Your task to perform on an android device: Go to calendar. Show me events next week Image 0: 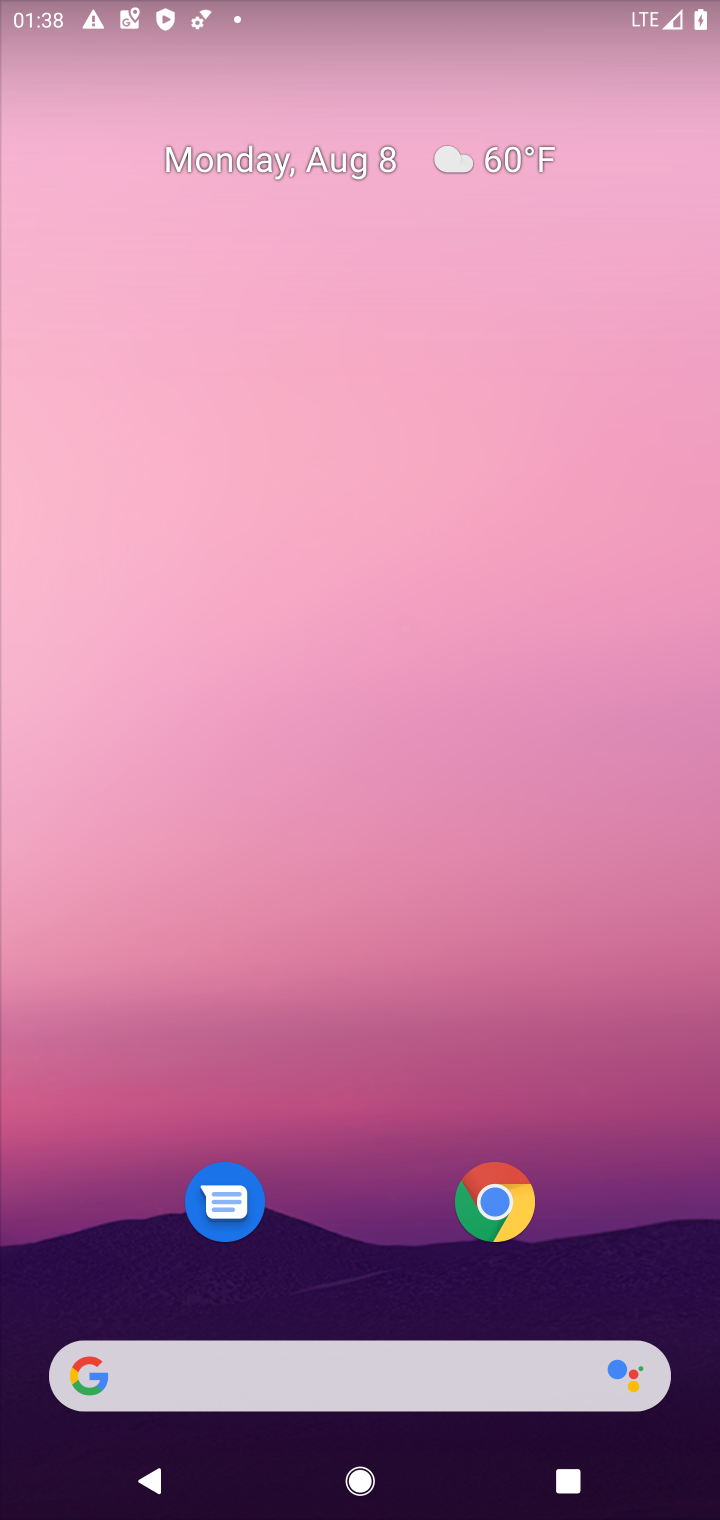
Step 0: drag from (327, 460) to (320, 298)
Your task to perform on an android device: Go to calendar. Show me events next week Image 1: 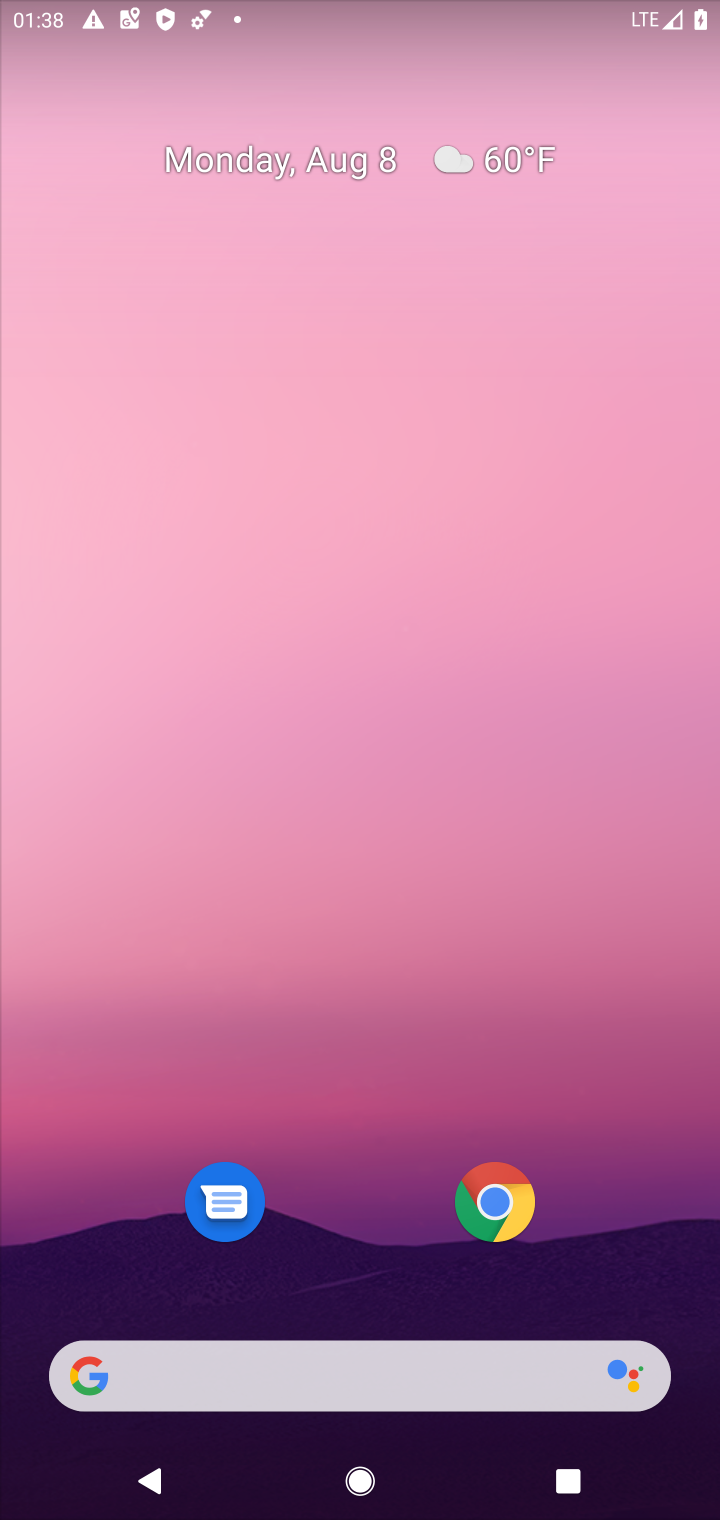
Step 1: drag from (366, 1247) to (281, 86)
Your task to perform on an android device: Go to calendar. Show me events next week Image 2: 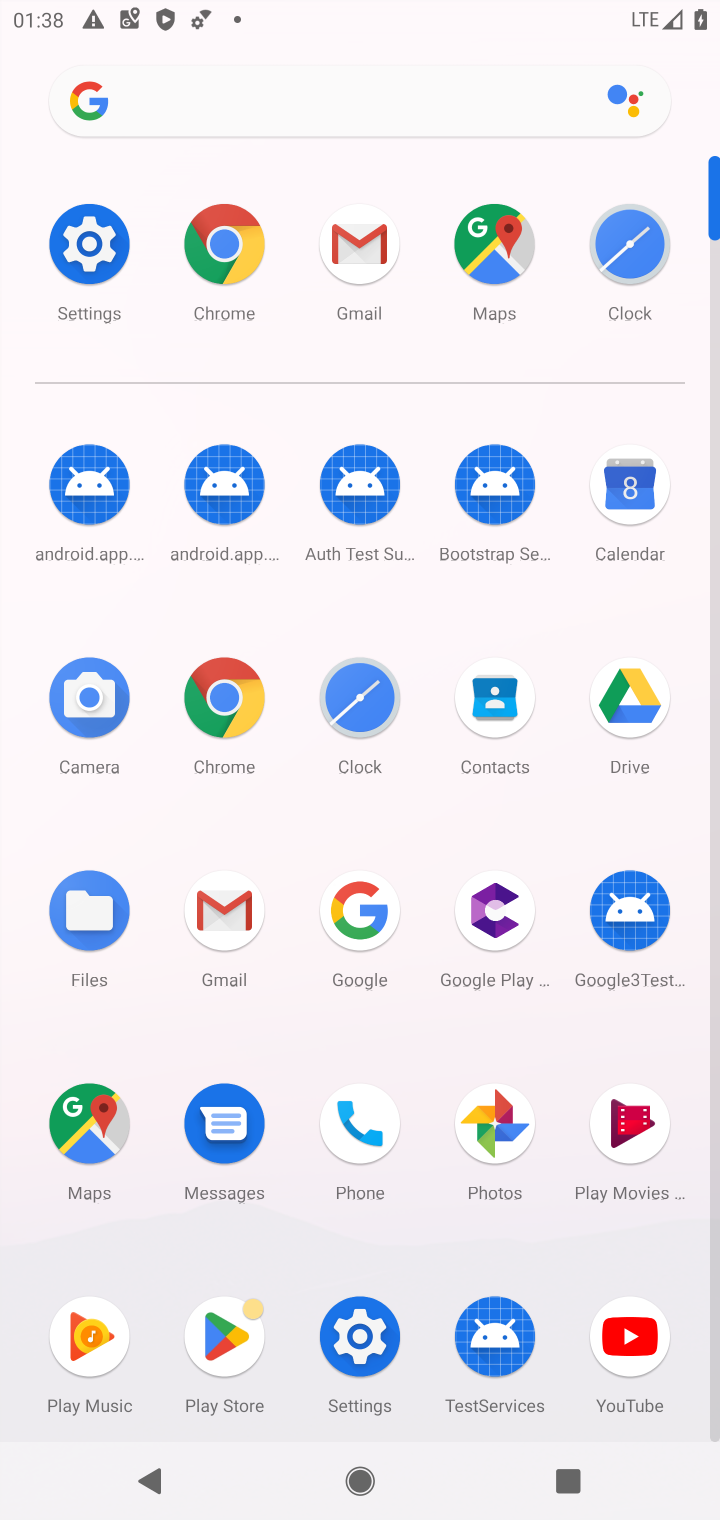
Step 2: click (634, 505)
Your task to perform on an android device: Go to calendar. Show me events next week Image 3: 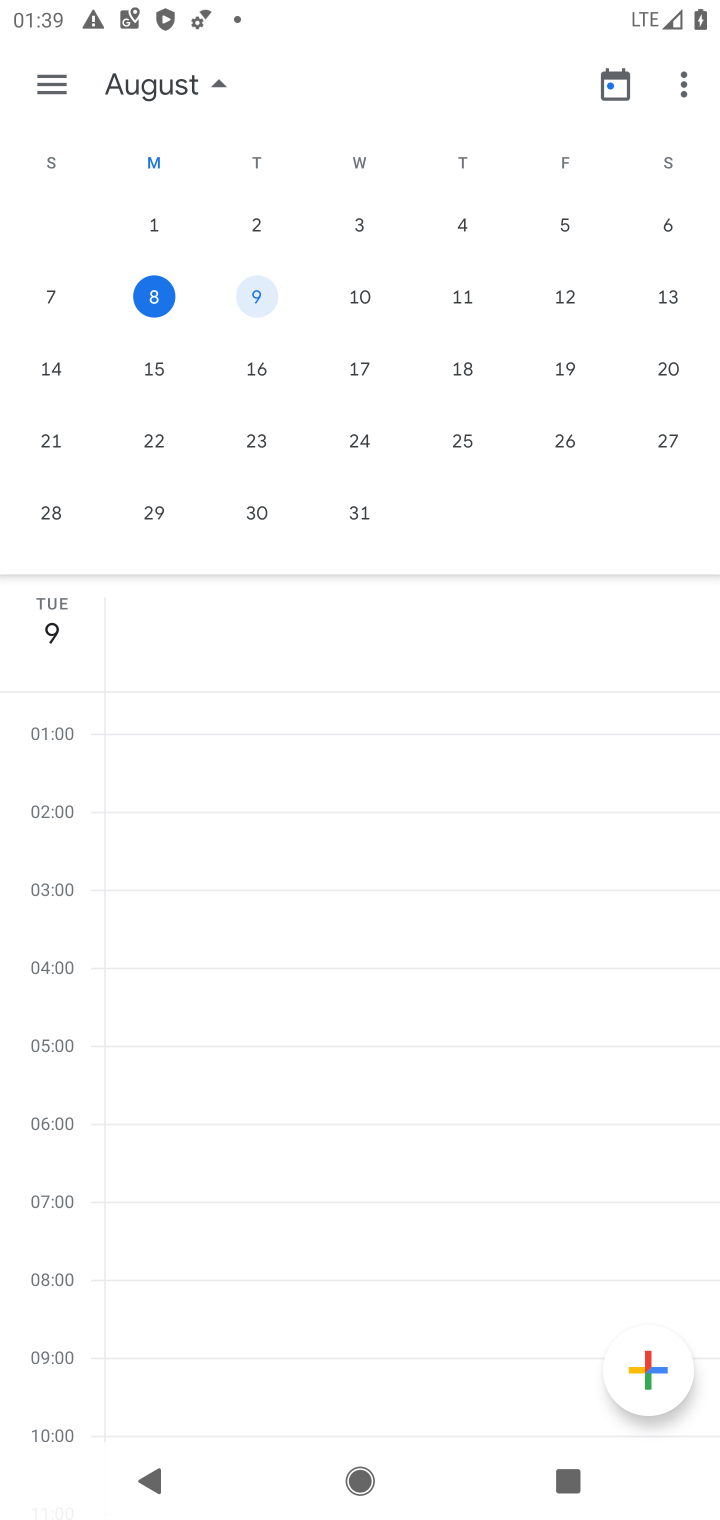
Step 3: click (44, 360)
Your task to perform on an android device: Go to calendar. Show me events next week Image 4: 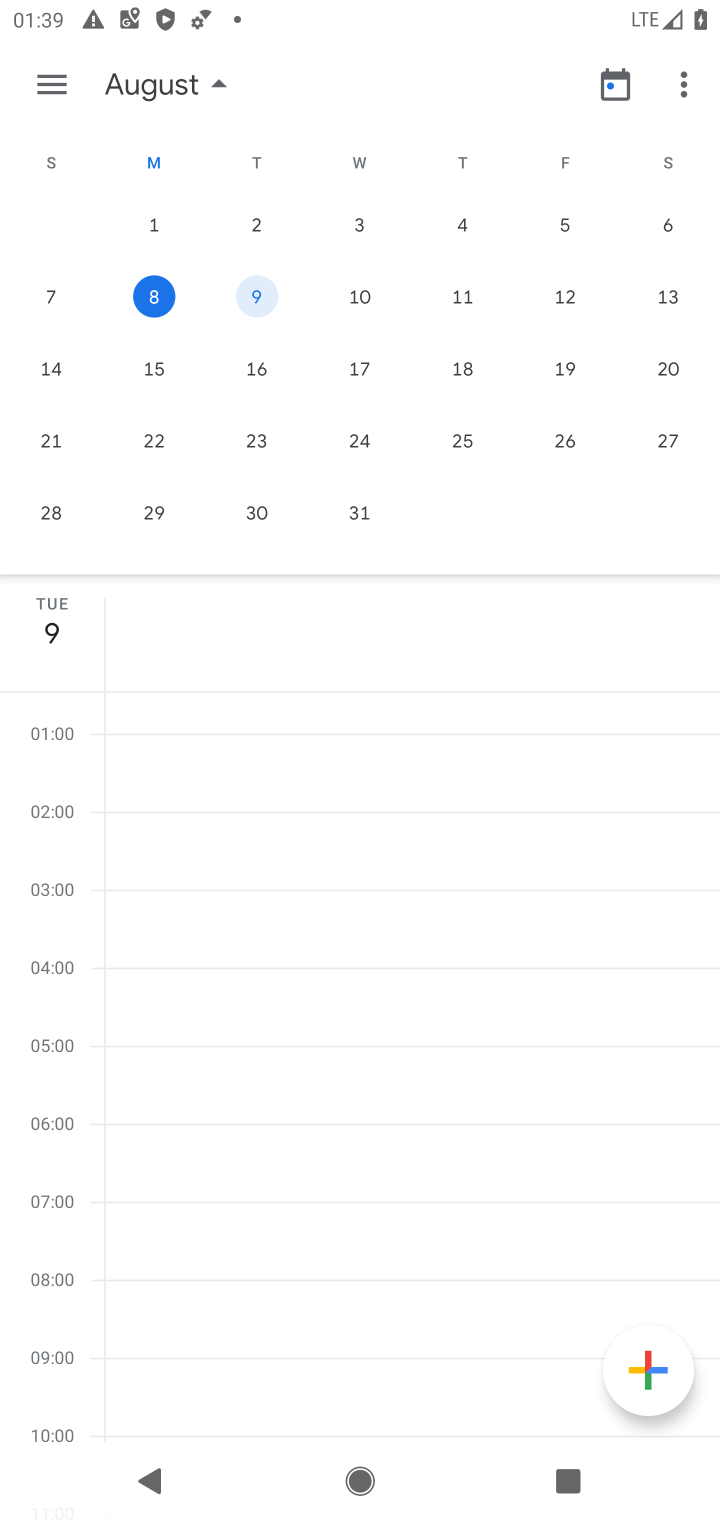
Step 4: click (44, 360)
Your task to perform on an android device: Go to calendar. Show me events next week Image 5: 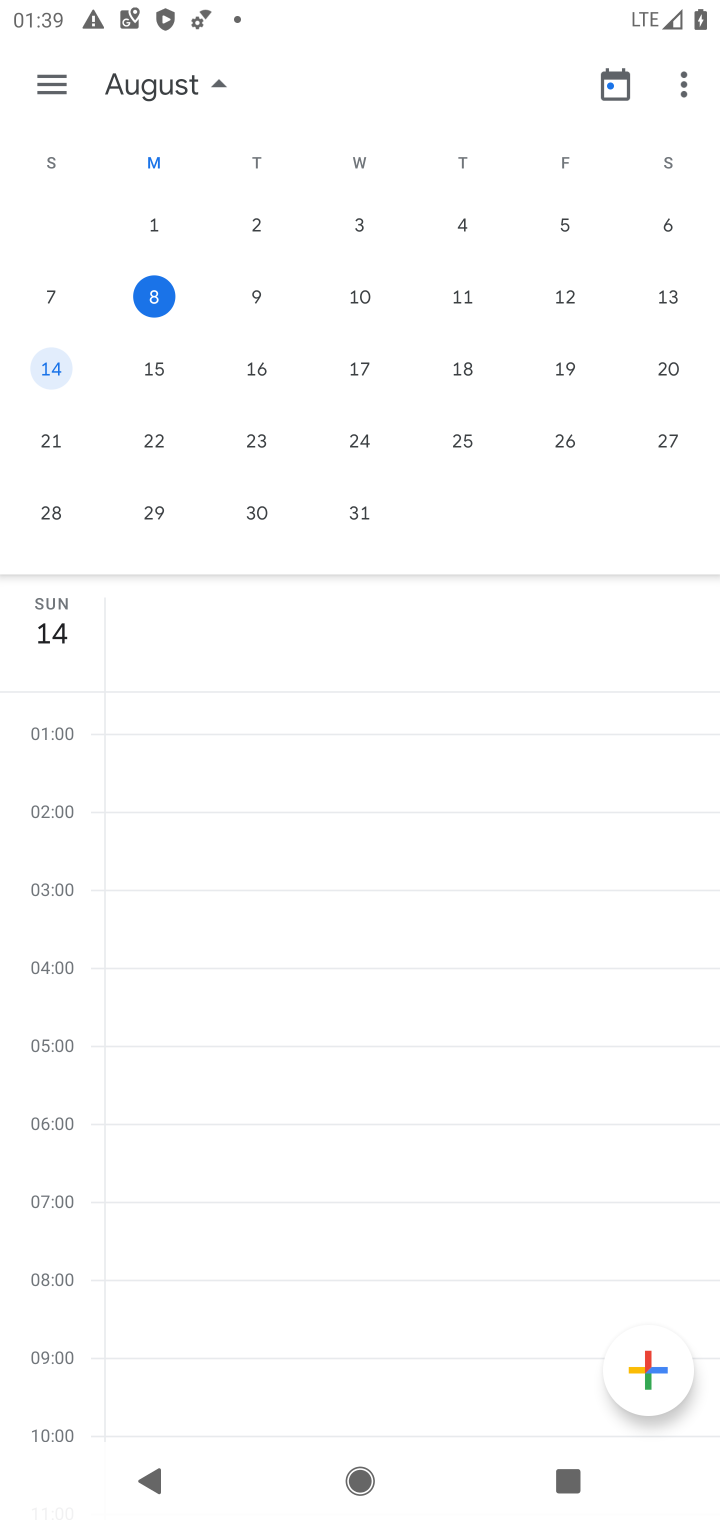
Step 5: click (62, 89)
Your task to perform on an android device: Go to calendar. Show me events next week Image 6: 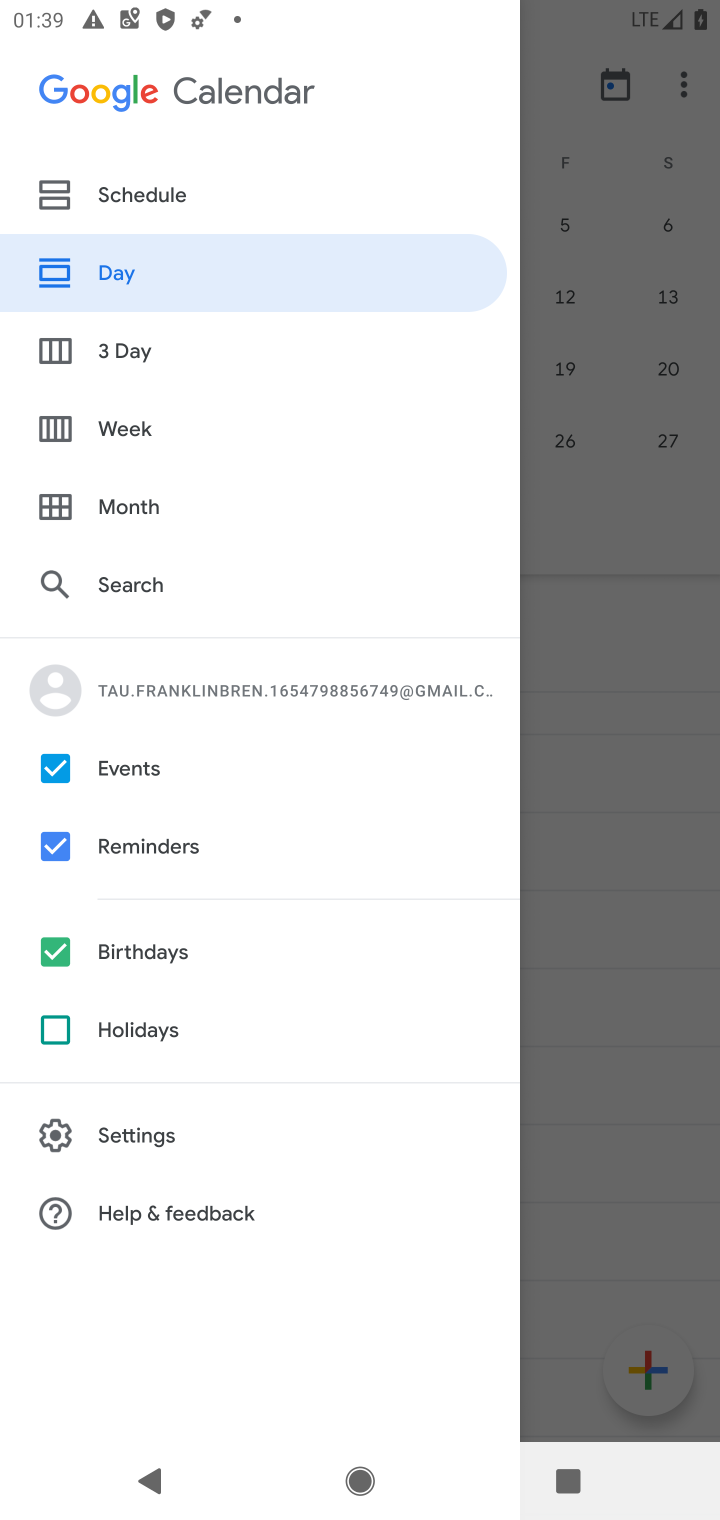
Step 6: click (123, 432)
Your task to perform on an android device: Go to calendar. Show me events next week Image 7: 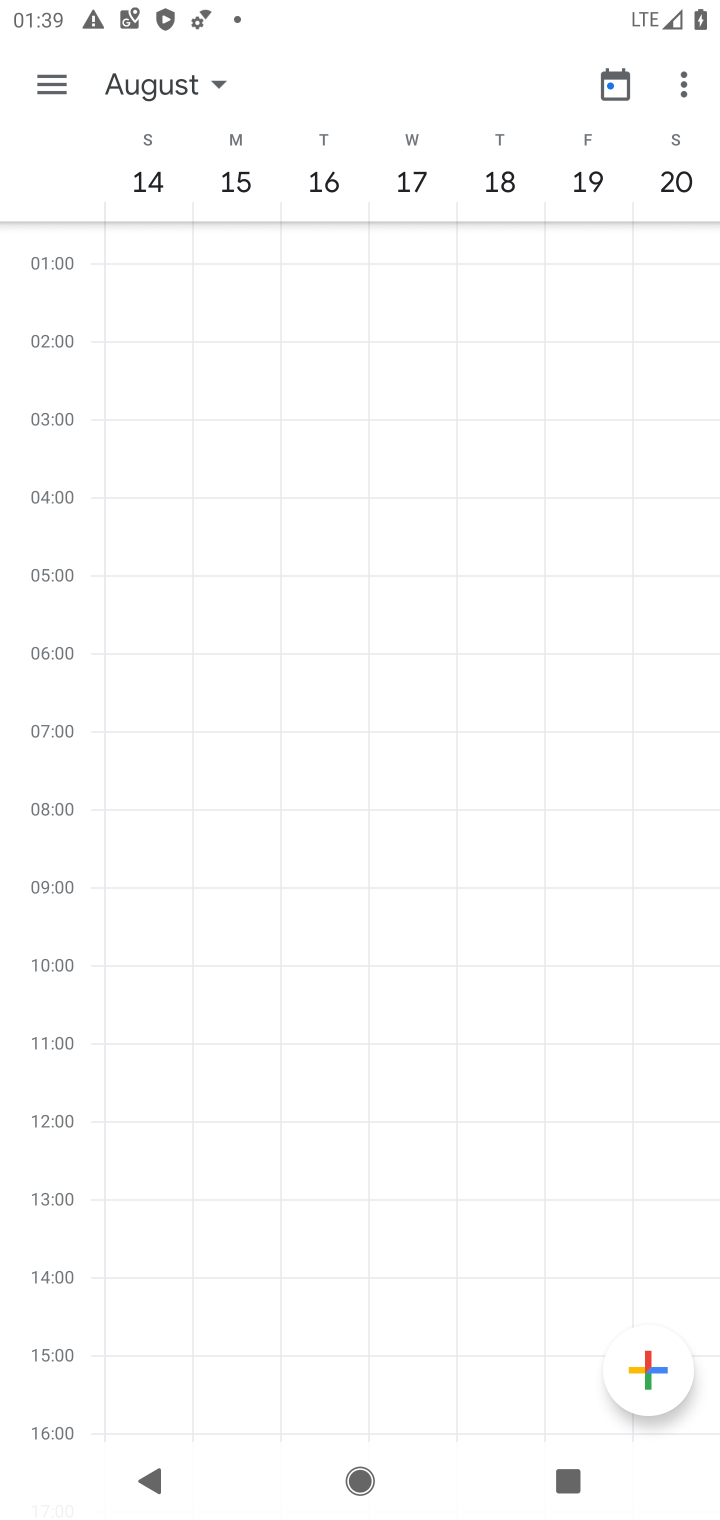
Step 7: task complete